Your task to perform on an android device: install app "Firefox Browser" Image 0: 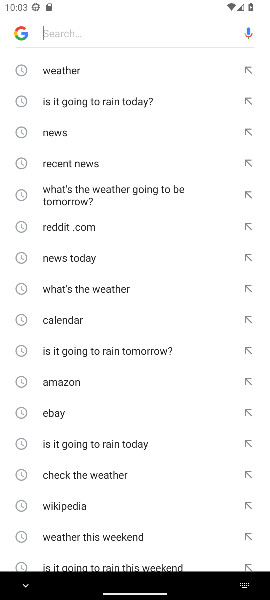
Step 0: press home button
Your task to perform on an android device: install app "Firefox Browser" Image 1: 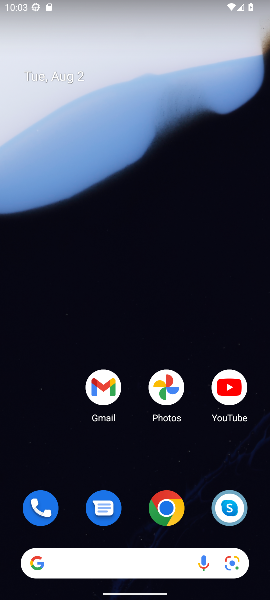
Step 1: drag from (120, 430) to (134, 58)
Your task to perform on an android device: install app "Firefox Browser" Image 2: 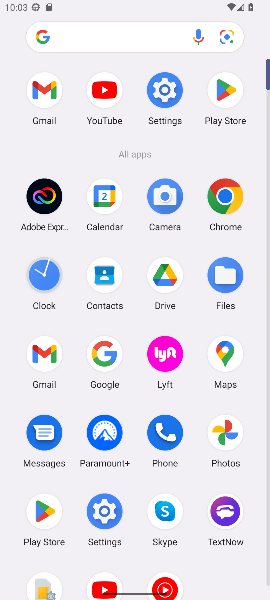
Step 2: click (223, 94)
Your task to perform on an android device: install app "Firefox Browser" Image 3: 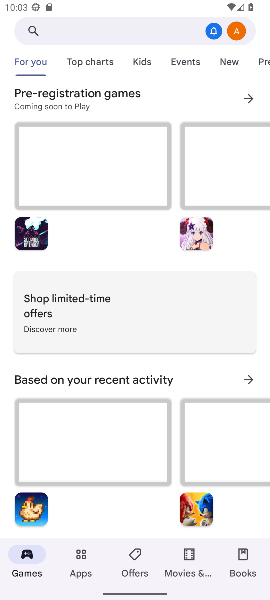
Step 3: click (59, 25)
Your task to perform on an android device: install app "Firefox Browser" Image 4: 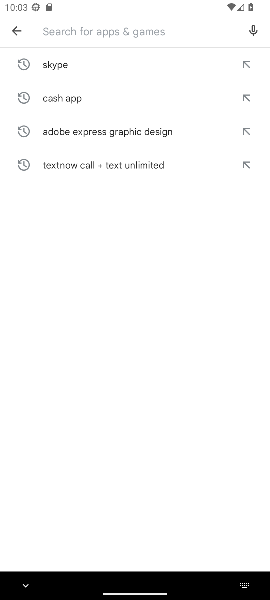
Step 4: type "Firefox Browser"
Your task to perform on an android device: install app "Firefox Browser" Image 5: 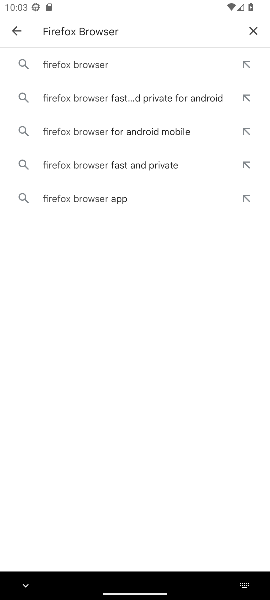
Step 5: click (80, 63)
Your task to perform on an android device: install app "Firefox Browser" Image 6: 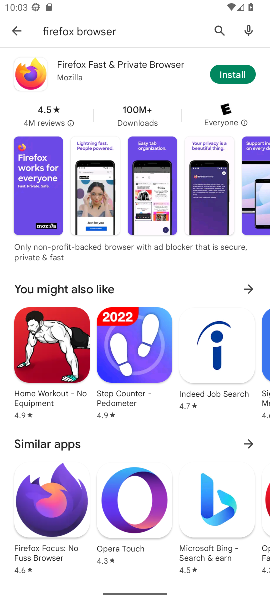
Step 6: click (223, 76)
Your task to perform on an android device: install app "Firefox Browser" Image 7: 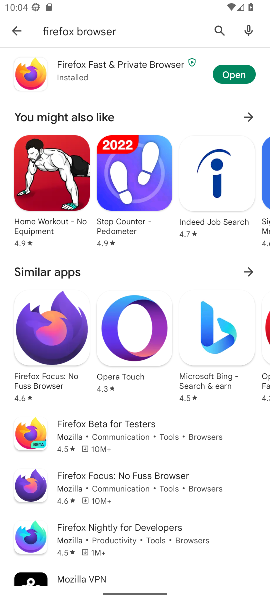
Step 7: task complete